Your task to perform on an android device: Open display settings Image 0: 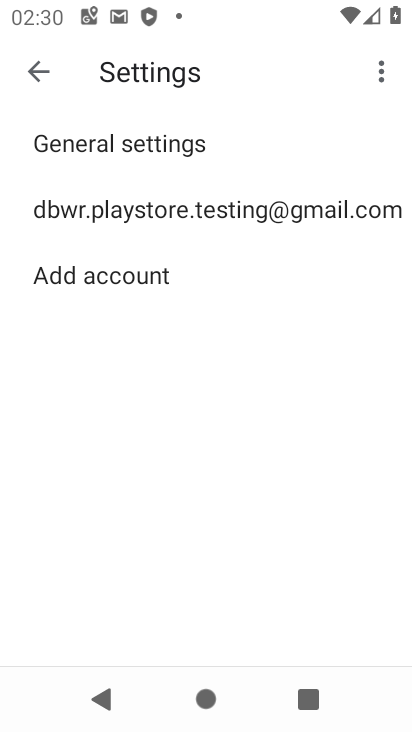
Step 0: press home button
Your task to perform on an android device: Open display settings Image 1: 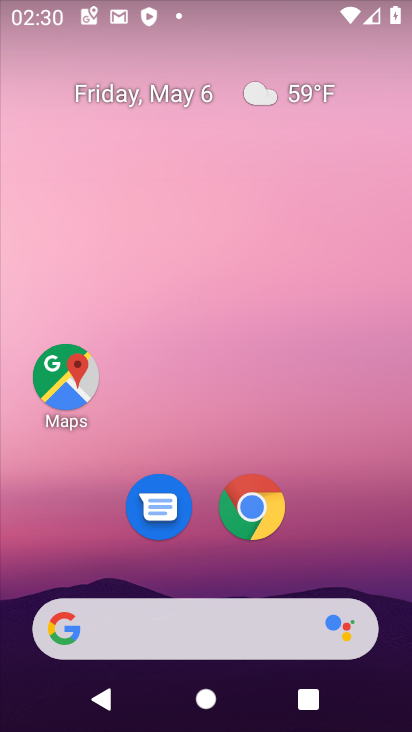
Step 1: drag from (338, 552) to (328, 122)
Your task to perform on an android device: Open display settings Image 2: 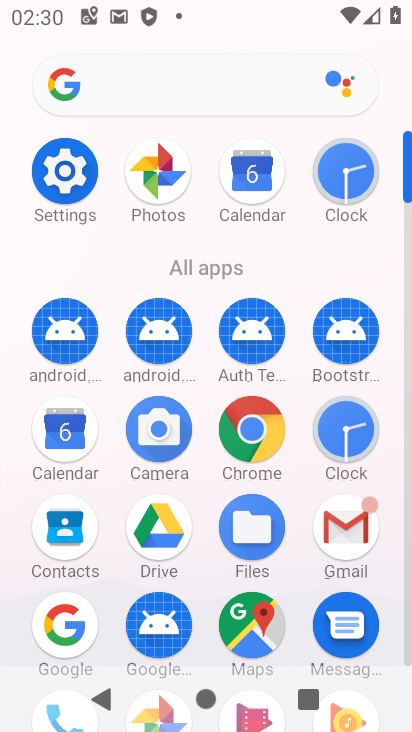
Step 2: click (69, 173)
Your task to perform on an android device: Open display settings Image 3: 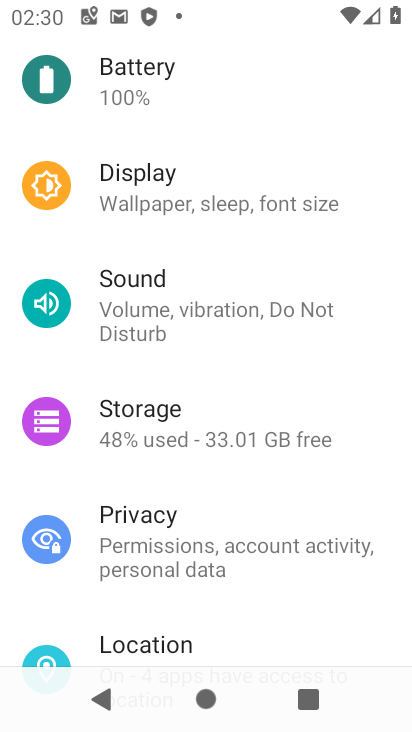
Step 3: click (193, 204)
Your task to perform on an android device: Open display settings Image 4: 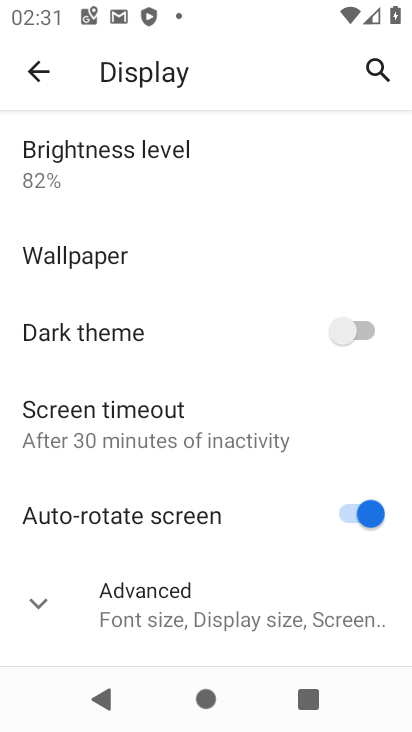
Step 4: task complete